Your task to perform on an android device: Open Youtube and go to the subscriptions tab Image 0: 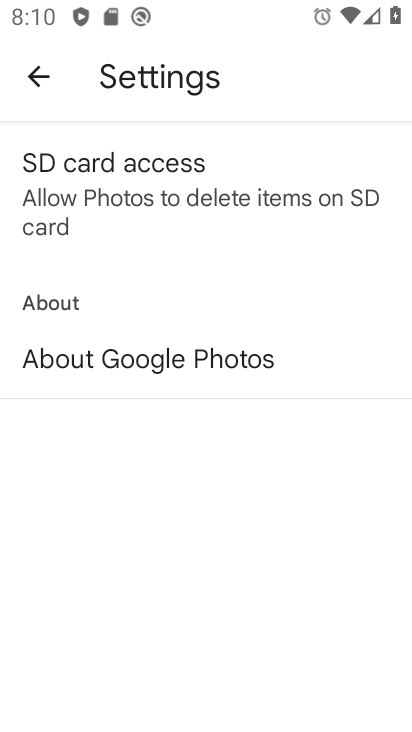
Step 0: press home button
Your task to perform on an android device: Open Youtube and go to the subscriptions tab Image 1: 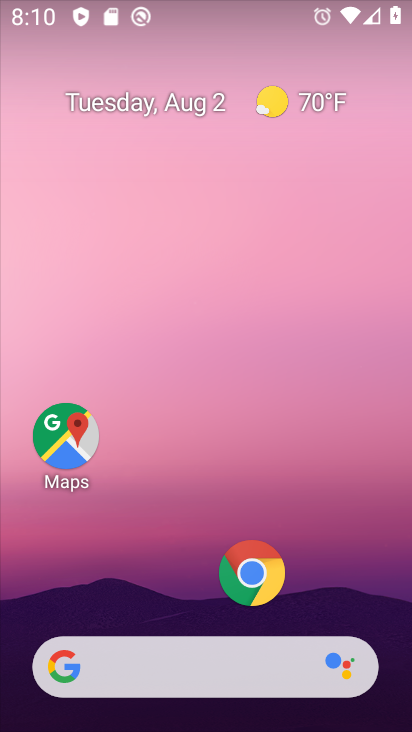
Step 1: drag from (200, 609) to (228, 130)
Your task to perform on an android device: Open Youtube and go to the subscriptions tab Image 2: 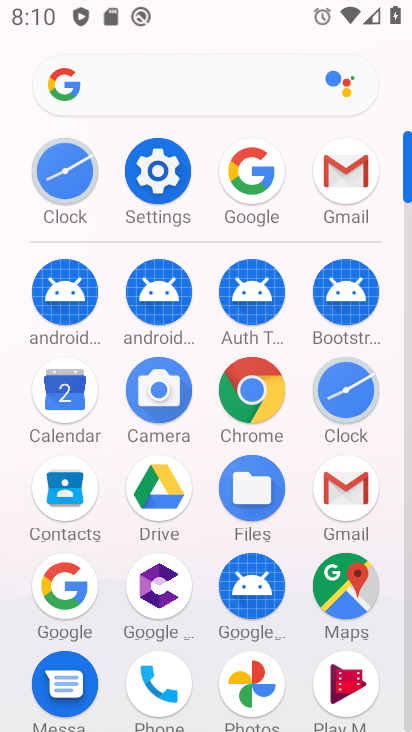
Step 2: drag from (207, 646) to (196, 185)
Your task to perform on an android device: Open Youtube and go to the subscriptions tab Image 3: 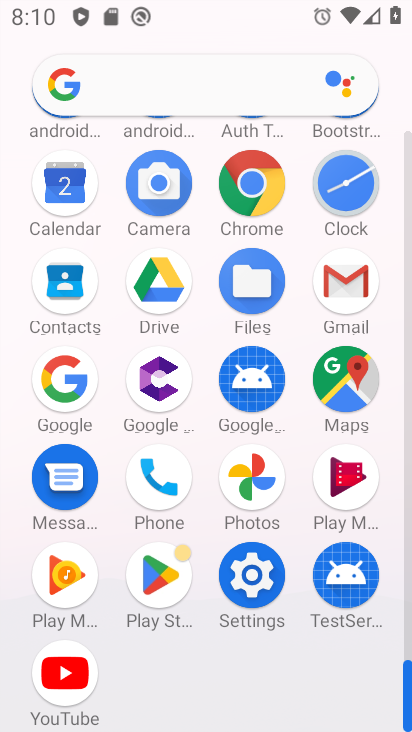
Step 3: click (64, 661)
Your task to perform on an android device: Open Youtube and go to the subscriptions tab Image 4: 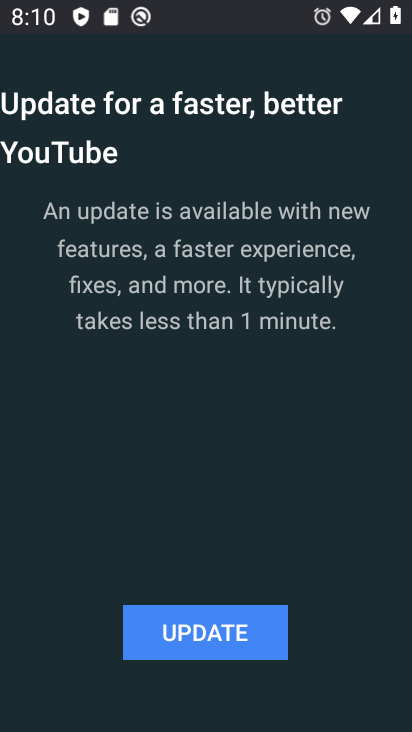
Step 4: click (218, 631)
Your task to perform on an android device: Open Youtube and go to the subscriptions tab Image 5: 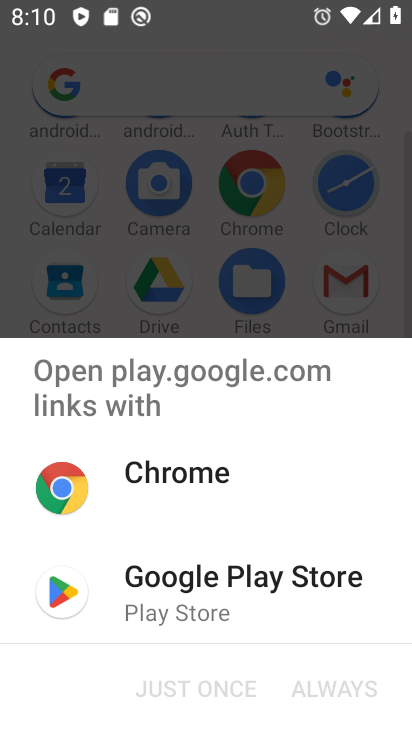
Step 5: click (159, 584)
Your task to perform on an android device: Open Youtube and go to the subscriptions tab Image 6: 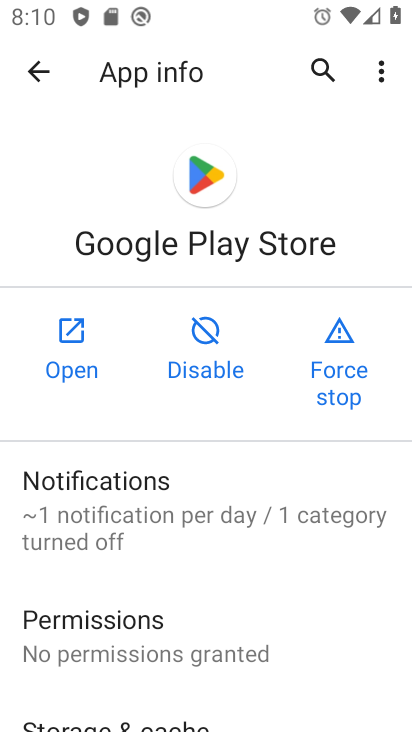
Step 6: click (44, 69)
Your task to perform on an android device: Open Youtube and go to the subscriptions tab Image 7: 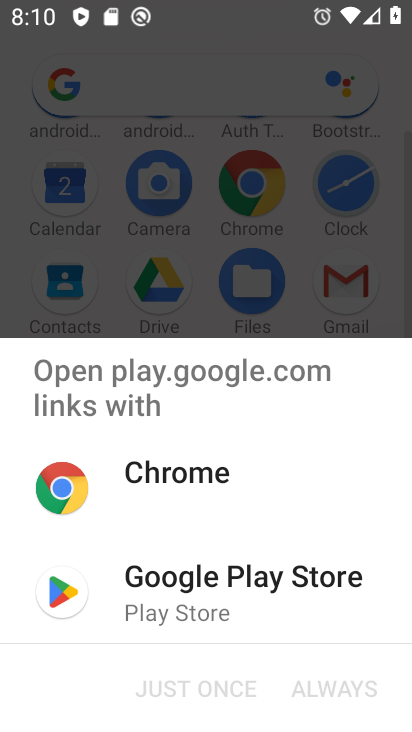
Step 7: click (149, 585)
Your task to perform on an android device: Open Youtube and go to the subscriptions tab Image 8: 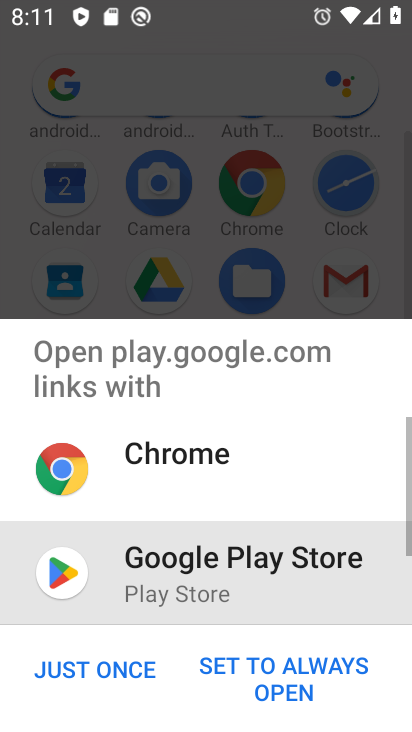
Step 8: click (77, 673)
Your task to perform on an android device: Open Youtube and go to the subscriptions tab Image 9: 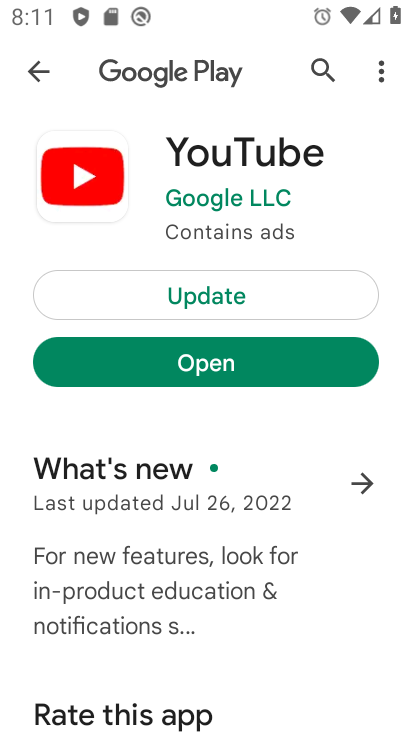
Step 9: click (207, 291)
Your task to perform on an android device: Open Youtube and go to the subscriptions tab Image 10: 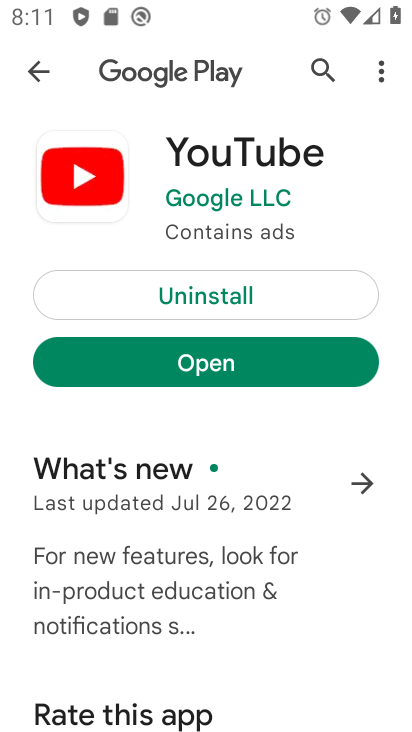
Step 10: click (199, 358)
Your task to perform on an android device: Open Youtube and go to the subscriptions tab Image 11: 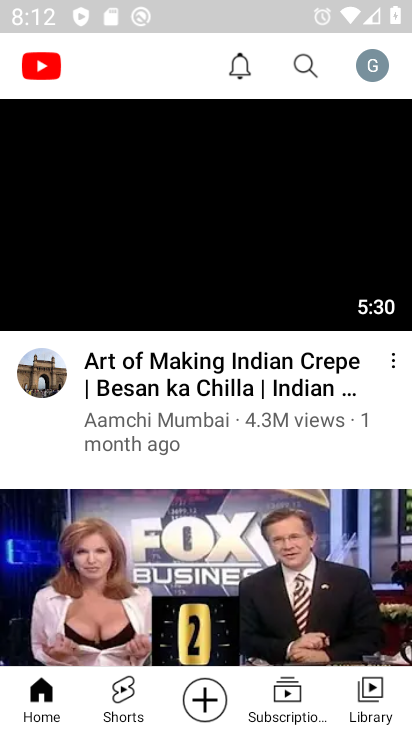
Step 11: click (286, 690)
Your task to perform on an android device: Open Youtube and go to the subscriptions tab Image 12: 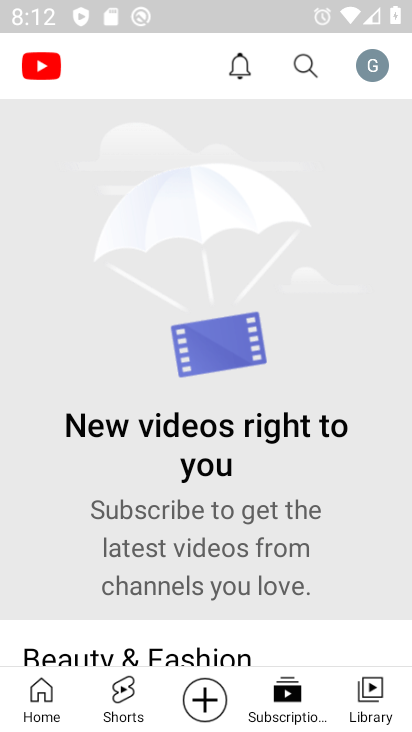
Step 12: task complete